Your task to perform on an android device: Toggle the flashlight Image 0: 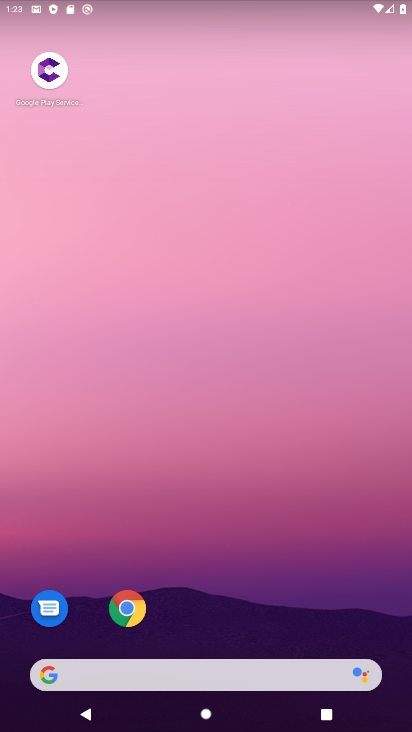
Step 0: drag from (256, 7) to (261, 339)
Your task to perform on an android device: Toggle the flashlight Image 1: 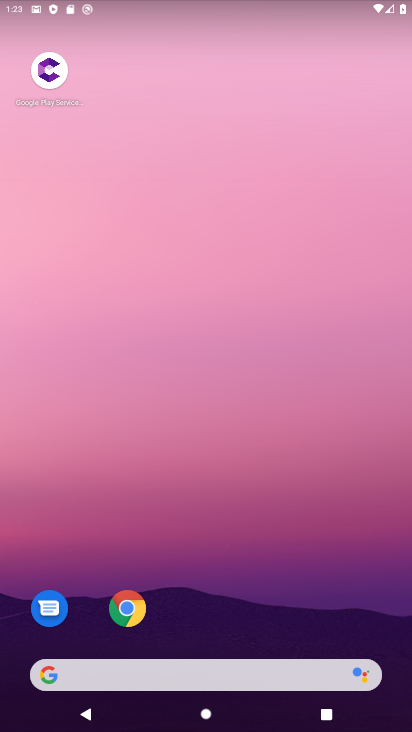
Step 1: drag from (249, 4) to (301, 476)
Your task to perform on an android device: Toggle the flashlight Image 2: 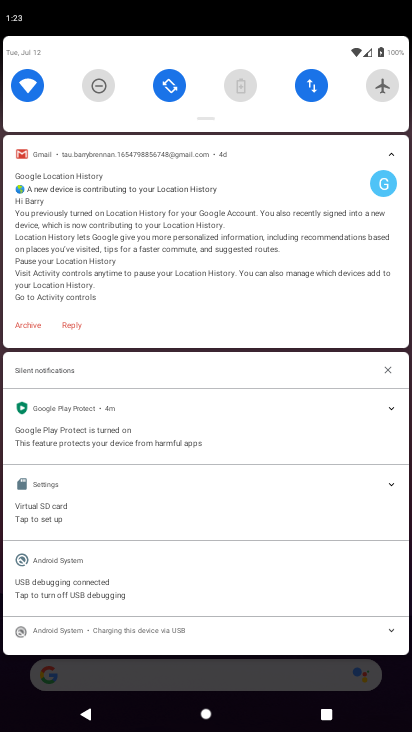
Step 2: drag from (204, 101) to (183, 376)
Your task to perform on an android device: Toggle the flashlight Image 3: 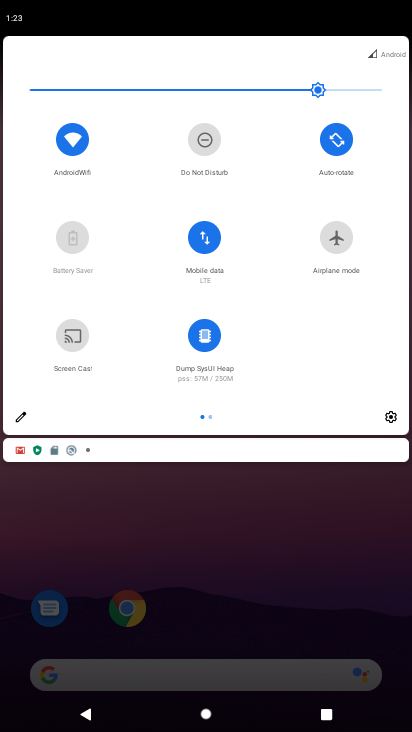
Step 3: drag from (378, 307) to (19, 314)
Your task to perform on an android device: Toggle the flashlight Image 4: 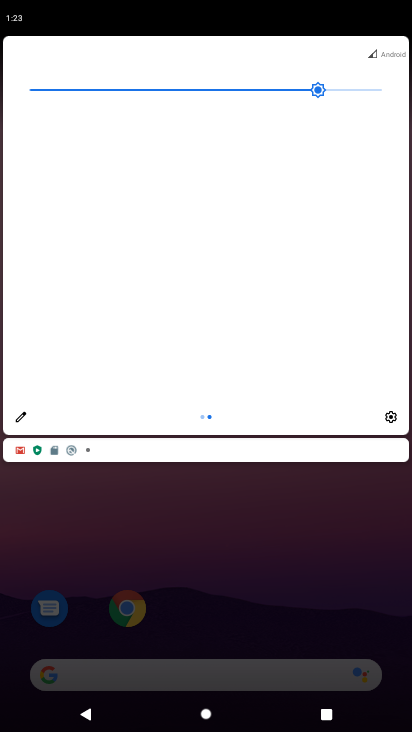
Step 4: click (27, 416)
Your task to perform on an android device: Toggle the flashlight Image 5: 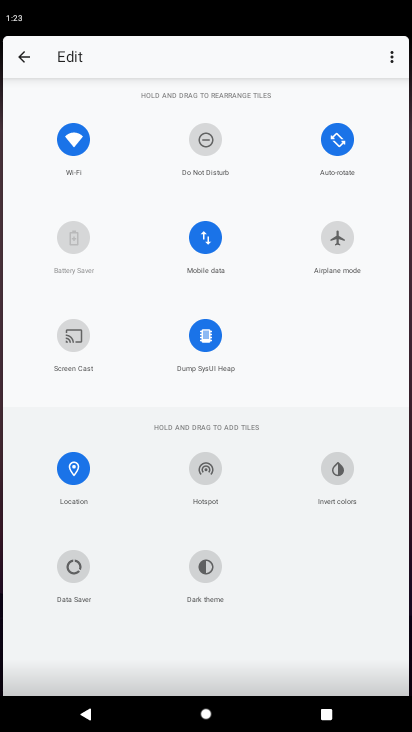
Step 5: task complete